Your task to perform on an android device: Go to privacy settings Image 0: 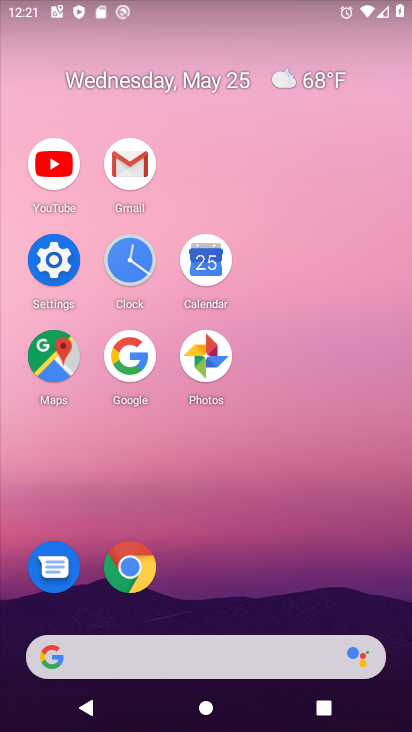
Step 0: click (46, 264)
Your task to perform on an android device: Go to privacy settings Image 1: 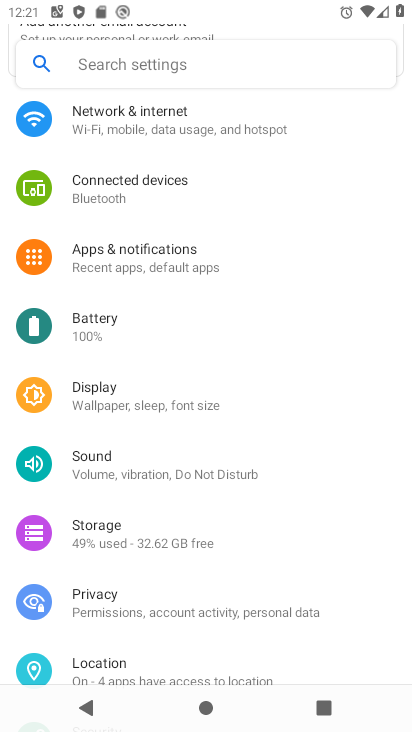
Step 1: click (189, 603)
Your task to perform on an android device: Go to privacy settings Image 2: 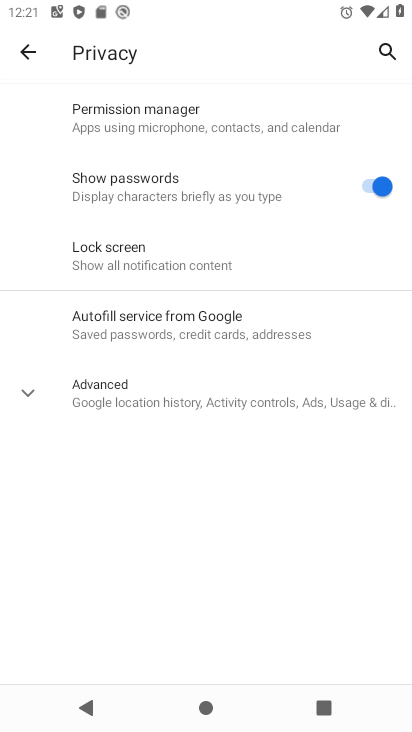
Step 2: task complete